Your task to perform on an android device: search for starred emails in the gmail app Image 0: 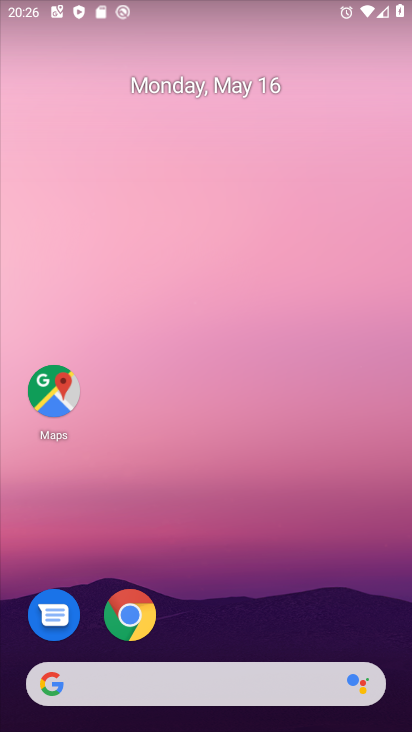
Step 0: drag from (244, 629) to (287, 149)
Your task to perform on an android device: search for starred emails in the gmail app Image 1: 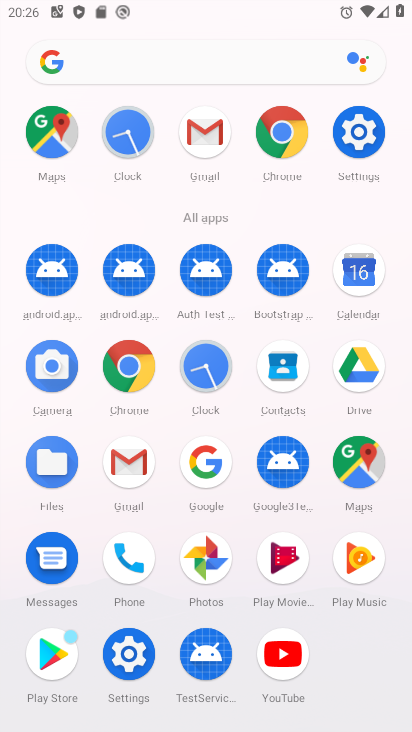
Step 1: click (130, 469)
Your task to perform on an android device: search for starred emails in the gmail app Image 2: 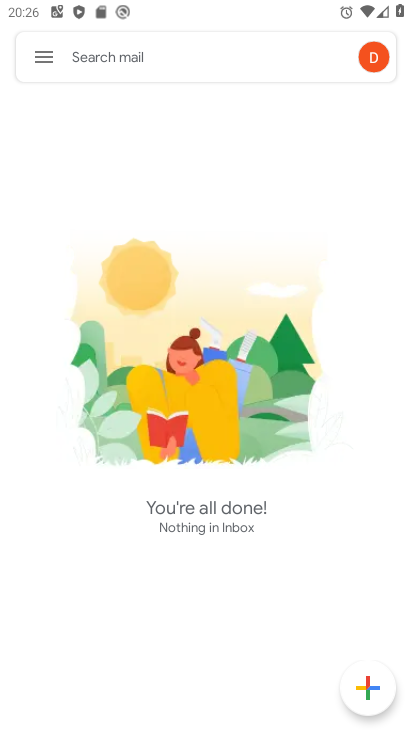
Step 2: click (37, 56)
Your task to perform on an android device: search for starred emails in the gmail app Image 3: 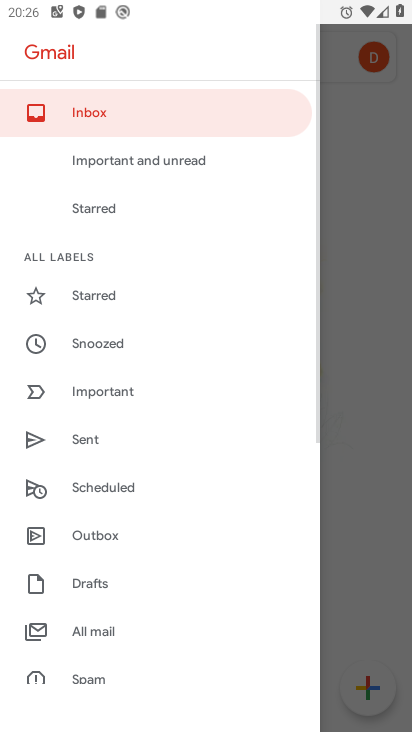
Step 3: click (107, 209)
Your task to perform on an android device: search for starred emails in the gmail app Image 4: 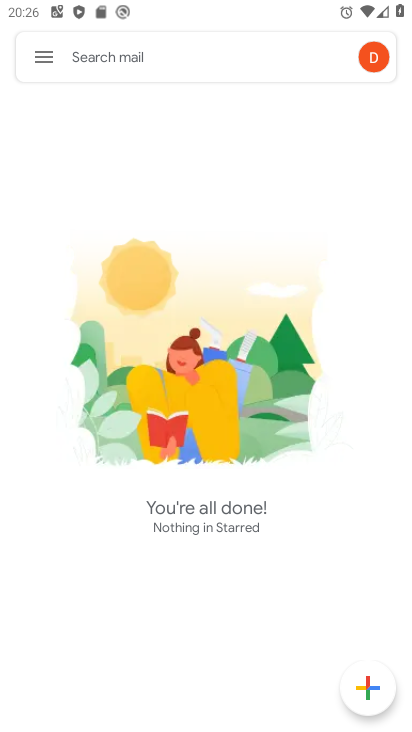
Step 4: task complete